Your task to perform on an android device: turn off smart reply in the gmail app Image 0: 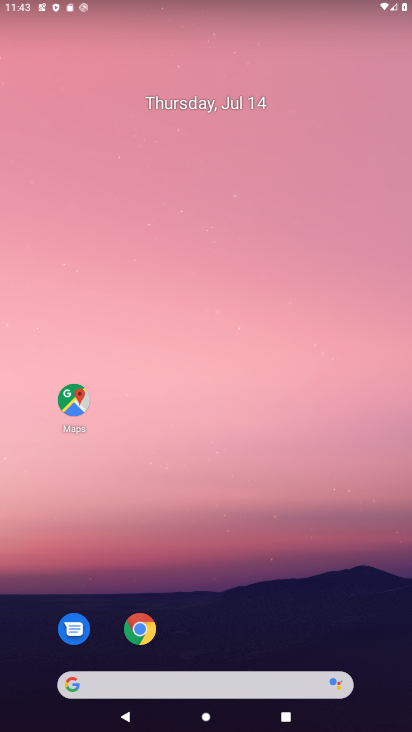
Step 0: press home button
Your task to perform on an android device: turn off smart reply in the gmail app Image 1: 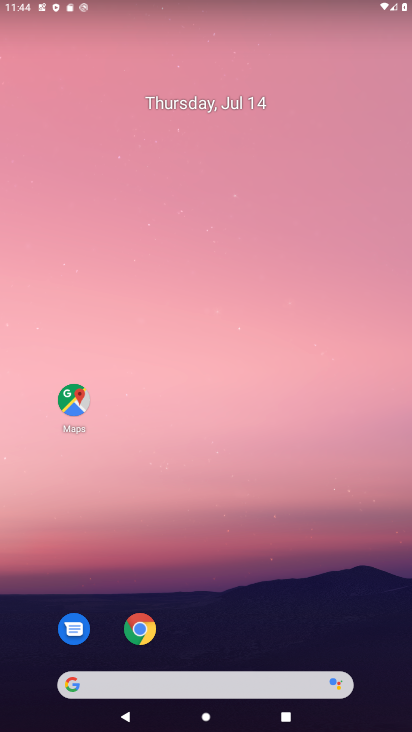
Step 1: drag from (317, 612) to (314, 33)
Your task to perform on an android device: turn off smart reply in the gmail app Image 2: 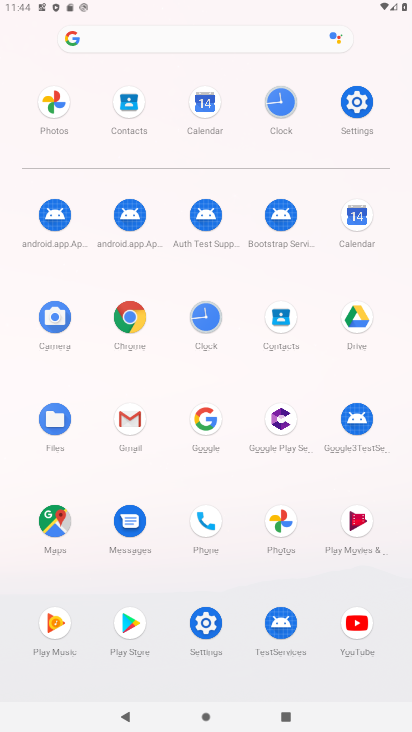
Step 2: click (137, 422)
Your task to perform on an android device: turn off smart reply in the gmail app Image 3: 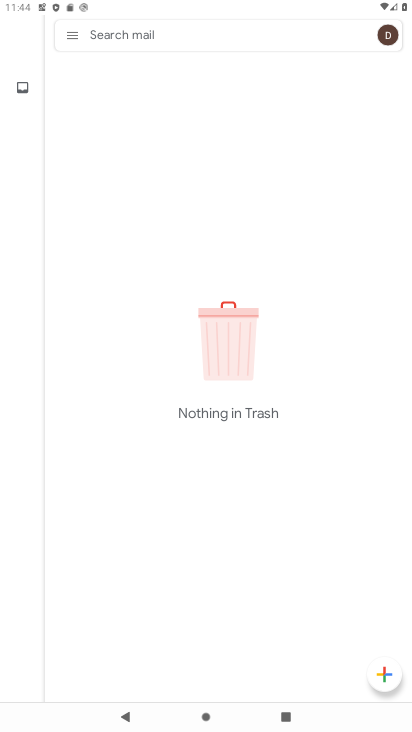
Step 3: click (69, 37)
Your task to perform on an android device: turn off smart reply in the gmail app Image 4: 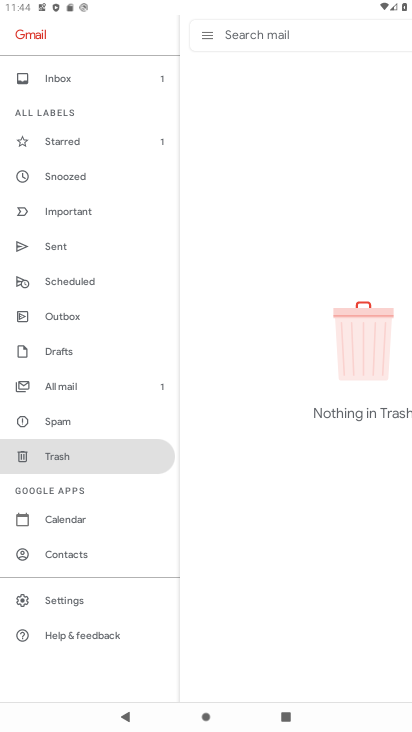
Step 4: click (53, 599)
Your task to perform on an android device: turn off smart reply in the gmail app Image 5: 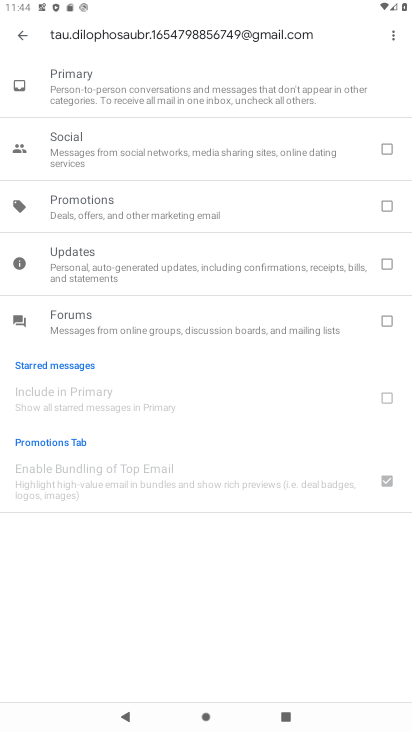
Step 5: click (24, 36)
Your task to perform on an android device: turn off smart reply in the gmail app Image 6: 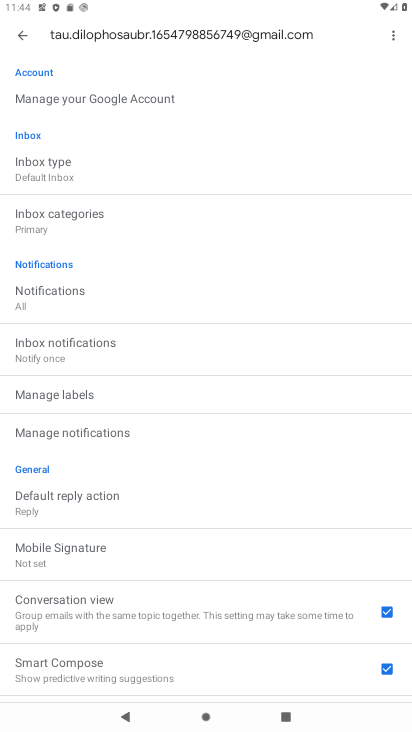
Step 6: drag from (230, 558) to (243, 238)
Your task to perform on an android device: turn off smart reply in the gmail app Image 7: 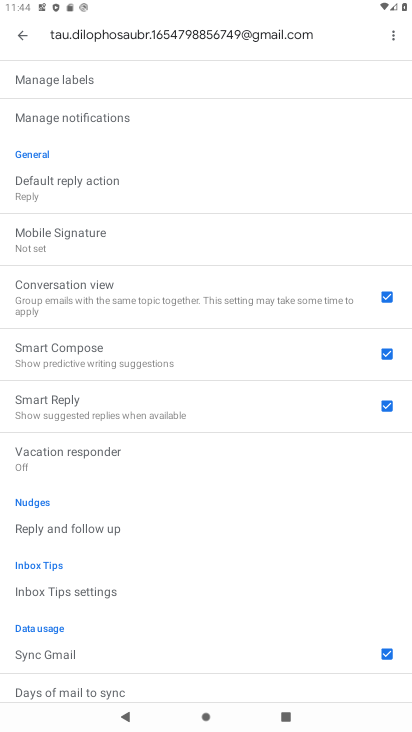
Step 7: click (384, 408)
Your task to perform on an android device: turn off smart reply in the gmail app Image 8: 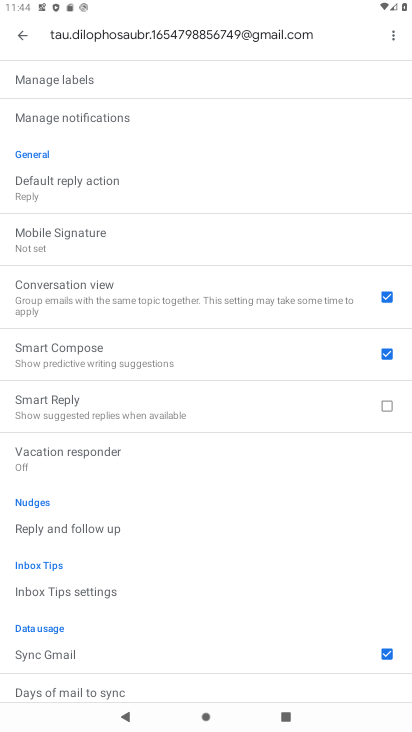
Step 8: task complete